Your task to perform on an android device: Open calendar and show me the first week of next month Image 0: 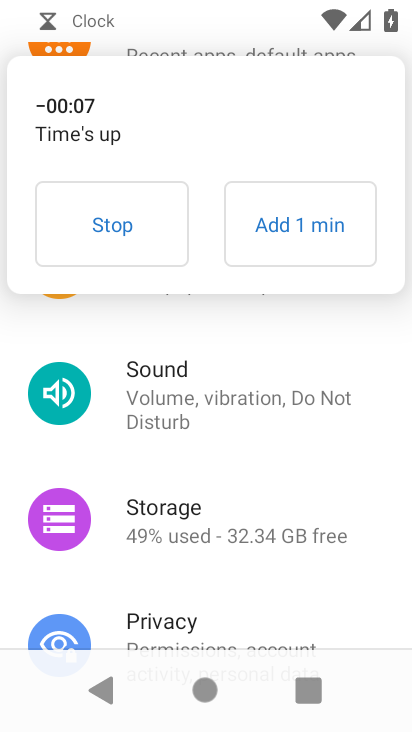
Step 0: click (116, 236)
Your task to perform on an android device: Open calendar and show me the first week of next month Image 1: 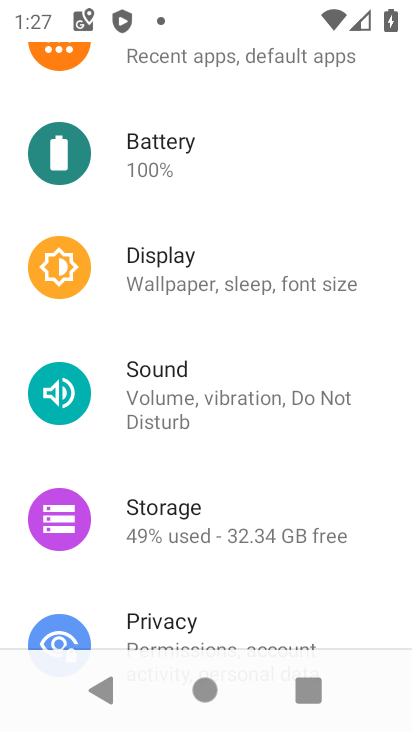
Step 1: press home button
Your task to perform on an android device: Open calendar and show me the first week of next month Image 2: 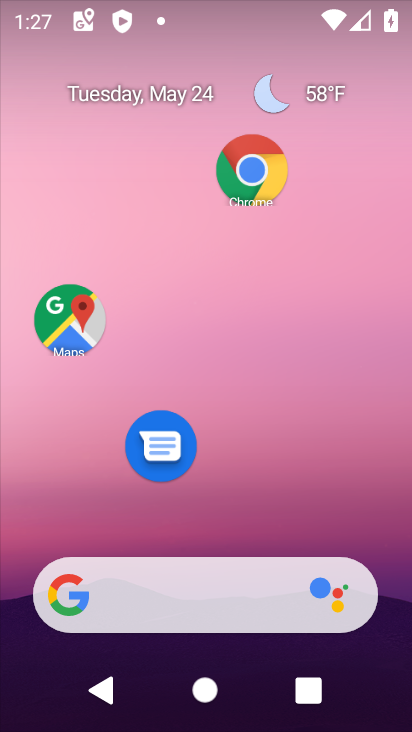
Step 2: drag from (202, 639) to (280, 164)
Your task to perform on an android device: Open calendar and show me the first week of next month Image 3: 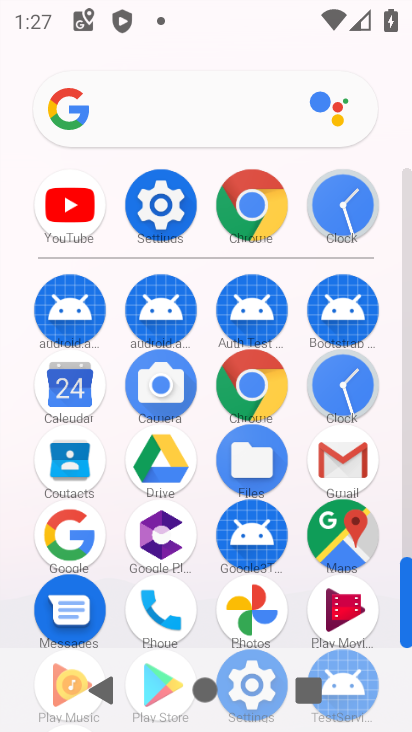
Step 3: click (79, 397)
Your task to perform on an android device: Open calendar and show me the first week of next month Image 4: 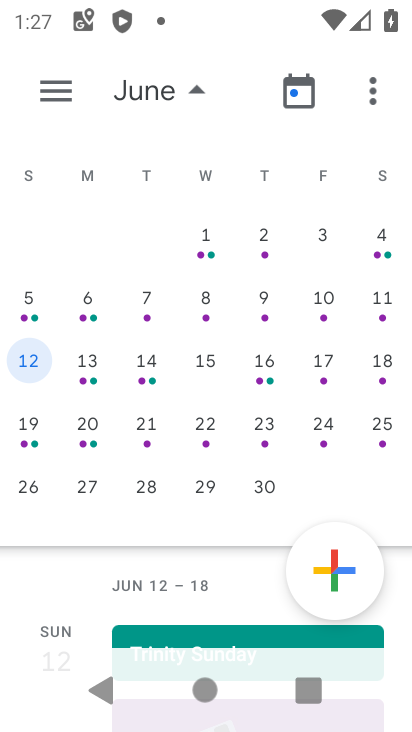
Step 4: click (33, 310)
Your task to perform on an android device: Open calendar and show me the first week of next month Image 5: 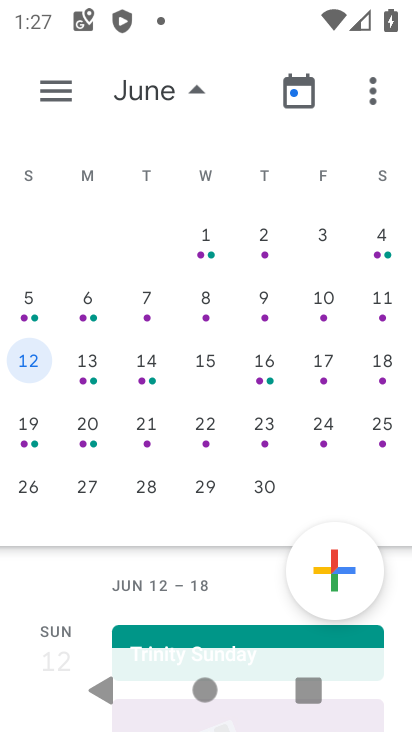
Step 5: click (39, 310)
Your task to perform on an android device: Open calendar and show me the first week of next month Image 6: 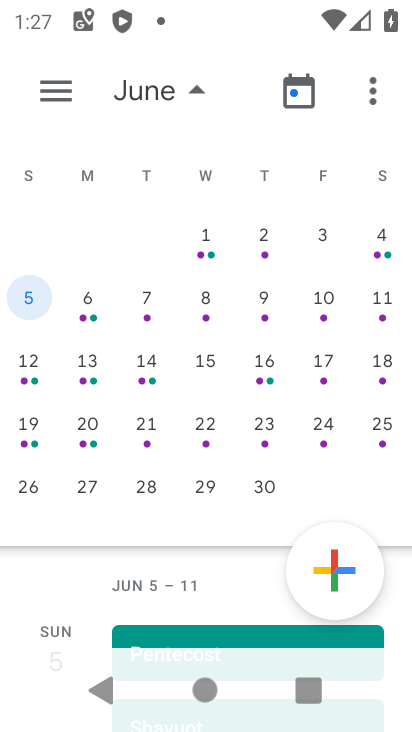
Step 6: task complete